Your task to perform on an android device: set the timer Image 0: 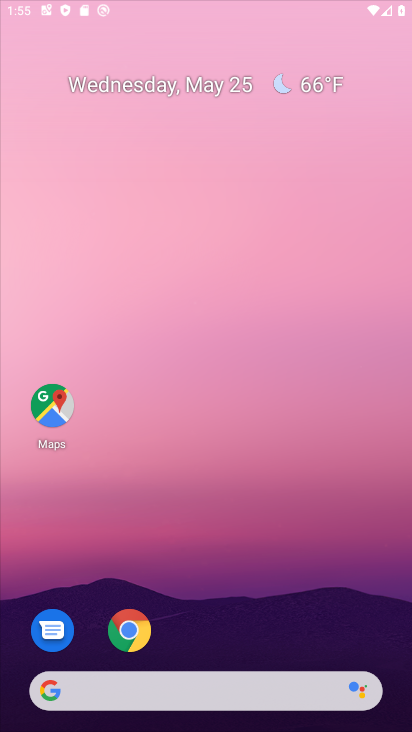
Step 0: press home button
Your task to perform on an android device: set the timer Image 1: 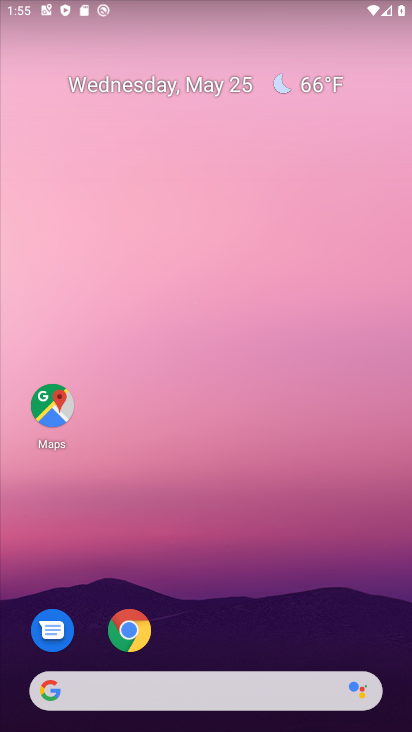
Step 1: drag from (219, 640) to (257, 179)
Your task to perform on an android device: set the timer Image 2: 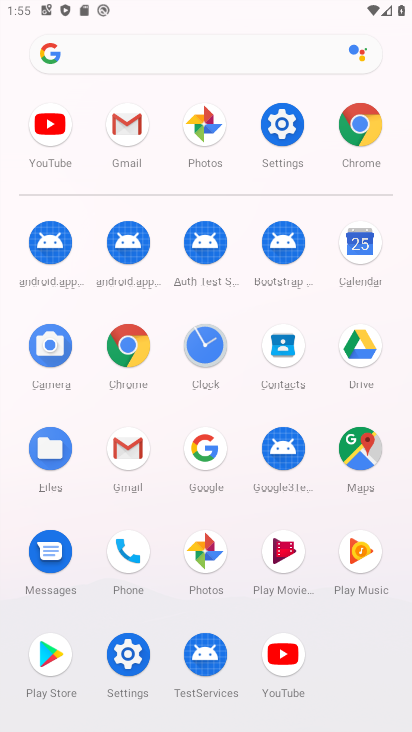
Step 2: click (204, 336)
Your task to perform on an android device: set the timer Image 3: 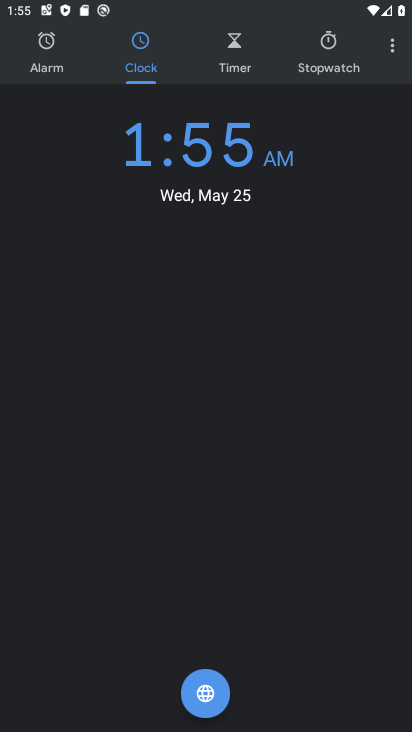
Step 3: click (232, 44)
Your task to perform on an android device: set the timer Image 4: 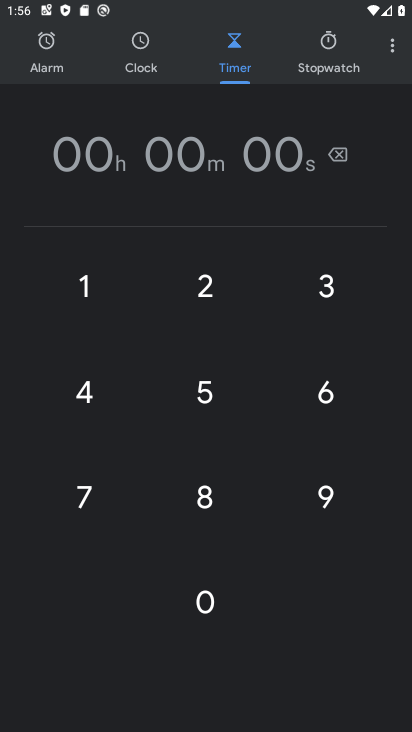
Step 4: click (204, 284)
Your task to perform on an android device: set the timer Image 5: 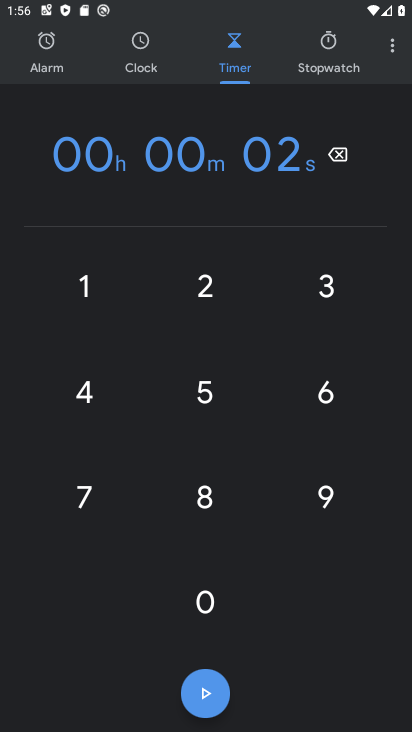
Step 5: click (200, 603)
Your task to perform on an android device: set the timer Image 6: 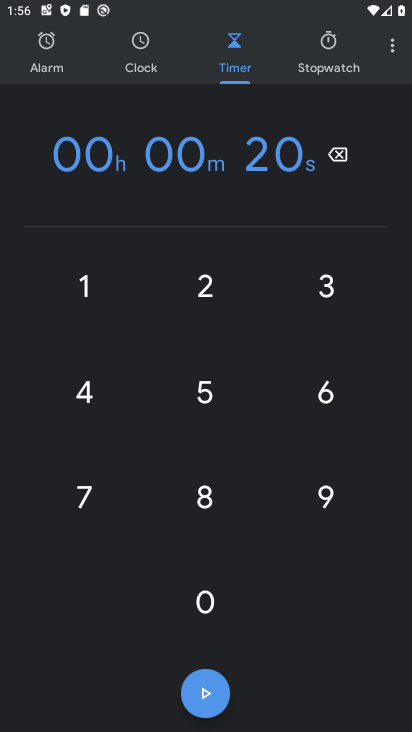
Step 6: click (201, 603)
Your task to perform on an android device: set the timer Image 7: 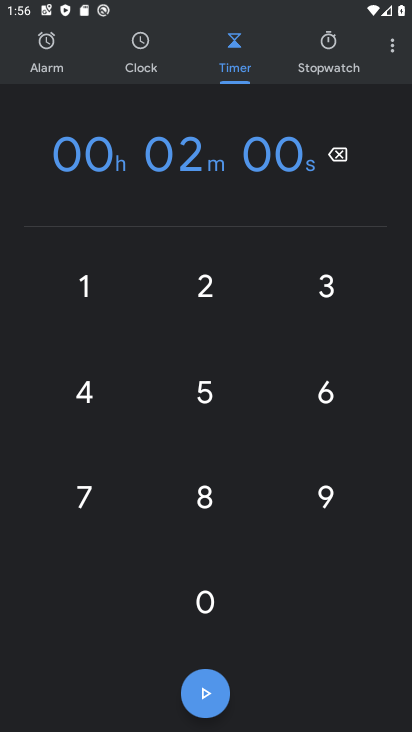
Step 7: click (201, 603)
Your task to perform on an android device: set the timer Image 8: 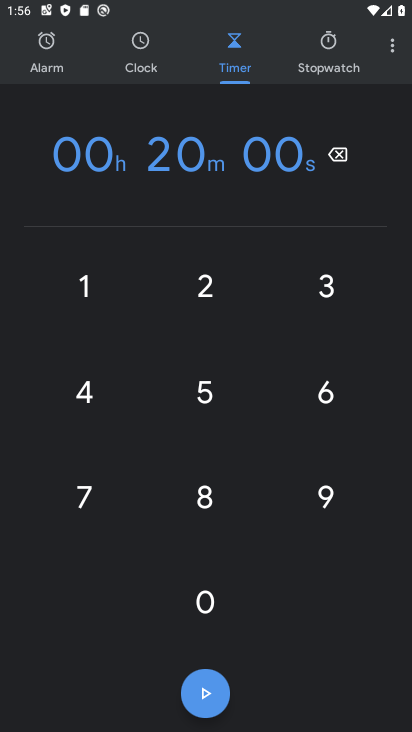
Step 8: click (204, 684)
Your task to perform on an android device: set the timer Image 9: 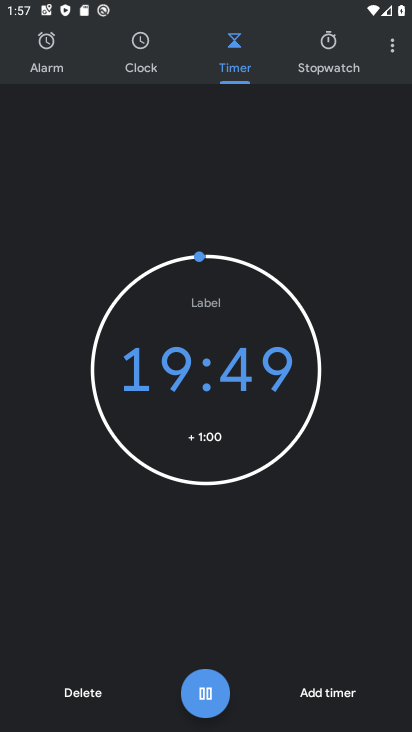
Step 9: task complete